Your task to perform on an android device: change alarm snooze length Image 0: 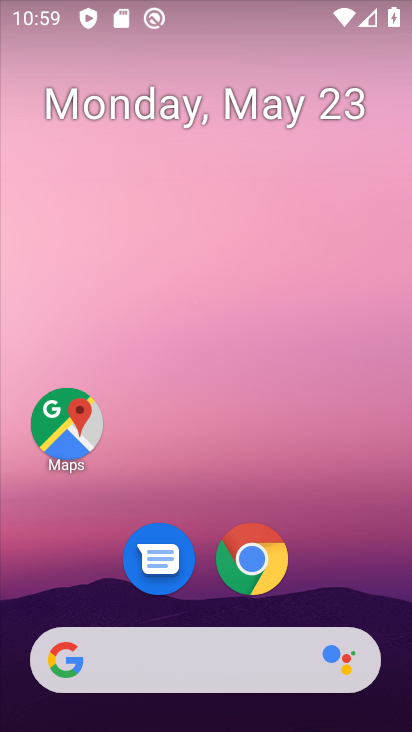
Step 0: drag from (93, 630) to (158, 333)
Your task to perform on an android device: change alarm snooze length Image 1: 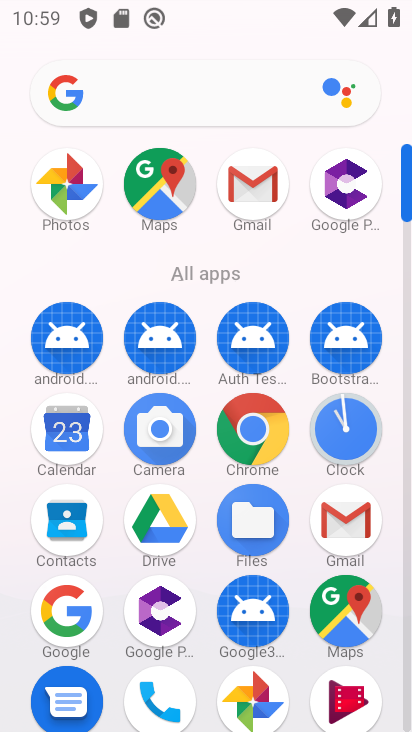
Step 1: click (370, 430)
Your task to perform on an android device: change alarm snooze length Image 2: 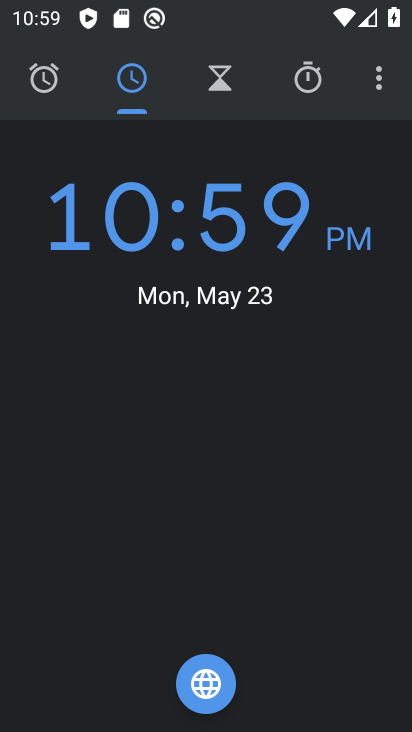
Step 2: click (382, 78)
Your task to perform on an android device: change alarm snooze length Image 3: 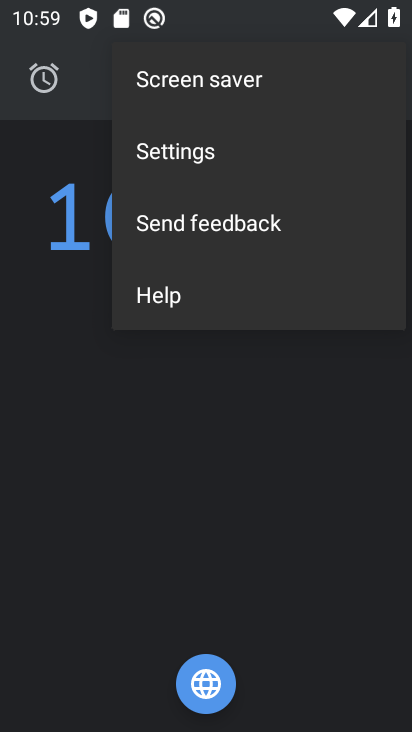
Step 3: click (255, 155)
Your task to perform on an android device: change alarm snooze length Image 4: 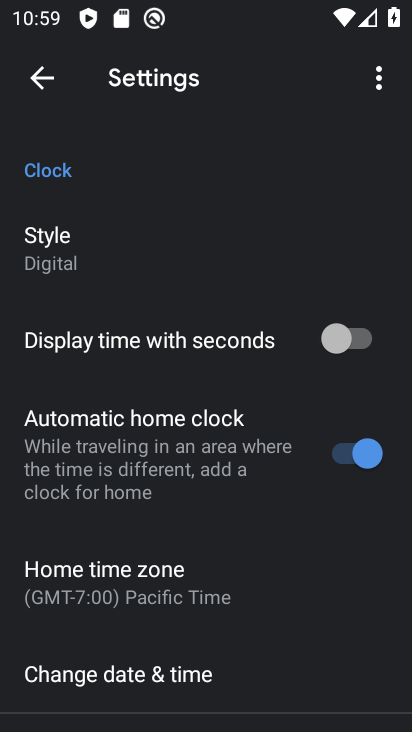
Step 4: drag from (172, 622) to (257, 176)
Your task to perform on an android device: change alarm snooze length Image 5: 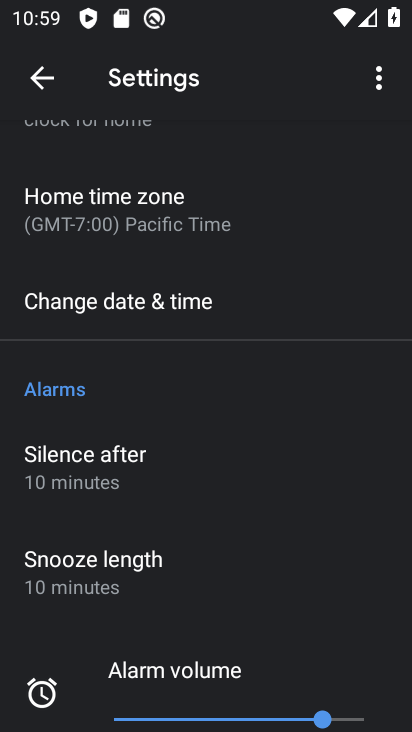
Step 5: click (223, 564)
Your task to perform on an android device: change alarm snooze length Image 6: 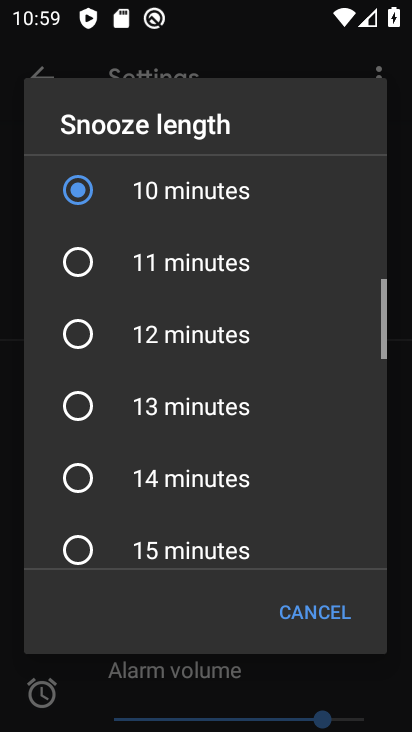
Step 6: click (230, 557)
Your task to perform on an android device: change alarm snooze length Image 7: 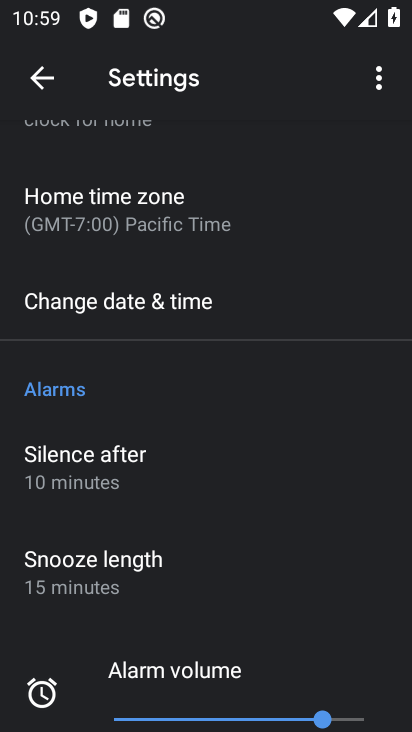
Step 7: task complete